Your task to perform on an android device: Go to battery settings Image 0: 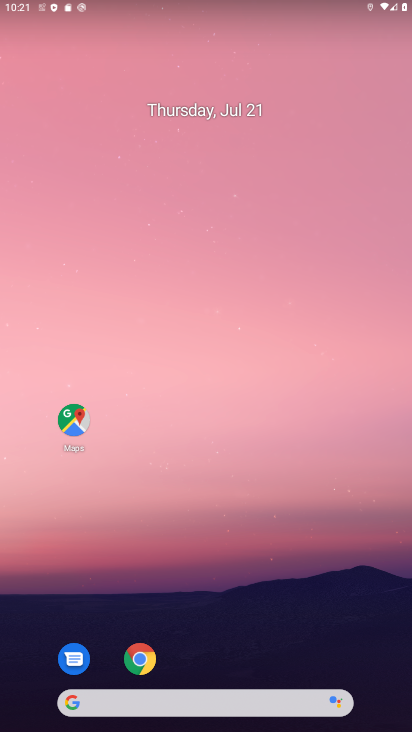
Step 0: drag from (198, 682) to (112, 241)
Your task to perform on an android device: Go to battery settings Image 1: 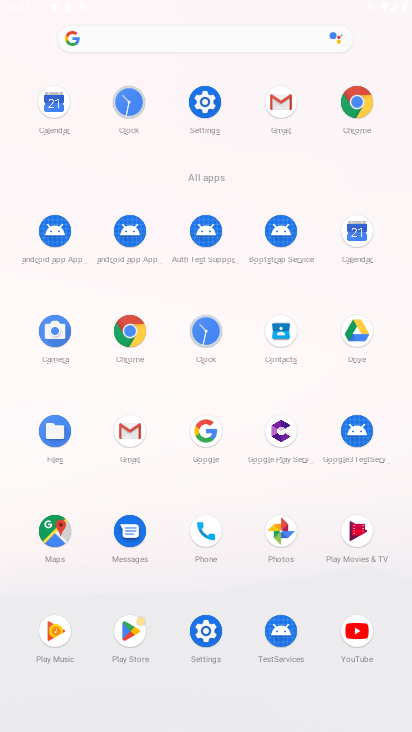
Step 1: click (188, 632)
Your task to perform on an android device: Go to battery settings Image 2: 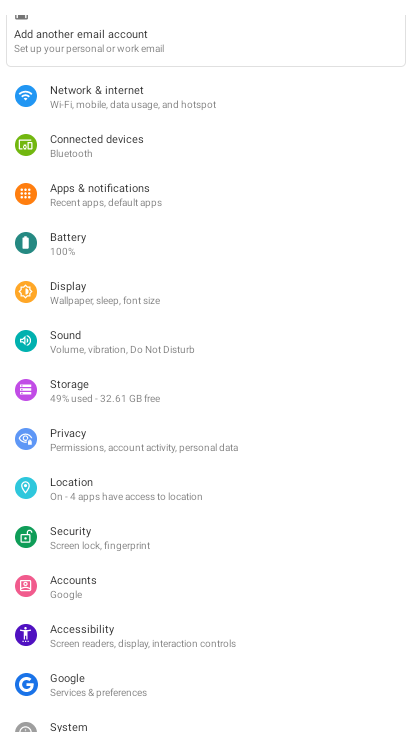
Step 2: click (43, 250)
Your task to perform on an android device: Go to battery settings Image 3: 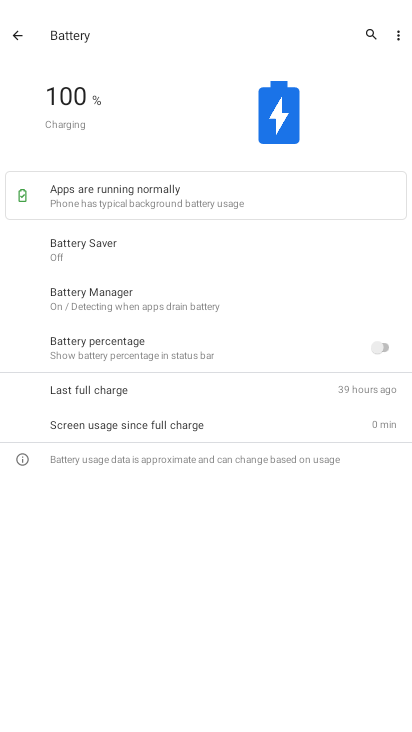
Step 3: task complete